Your task to perform on an android device: Search for Italian restaurants on Maps Image 0: 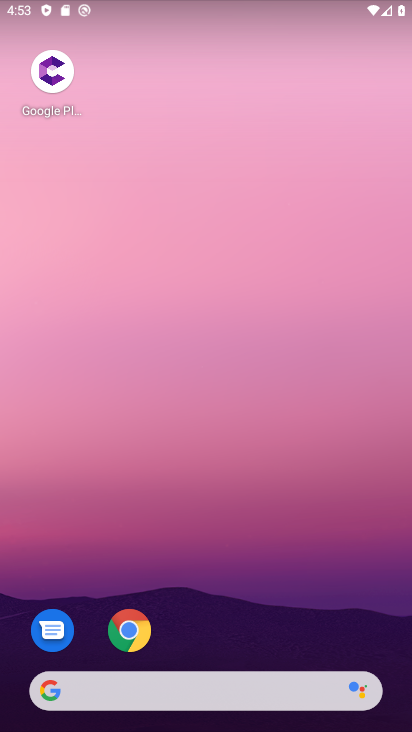
Step 0: drag from (330, 578) to (250, 48)
Your task to perform on an android device: Search for Italian restaurants on Maps Image 1: 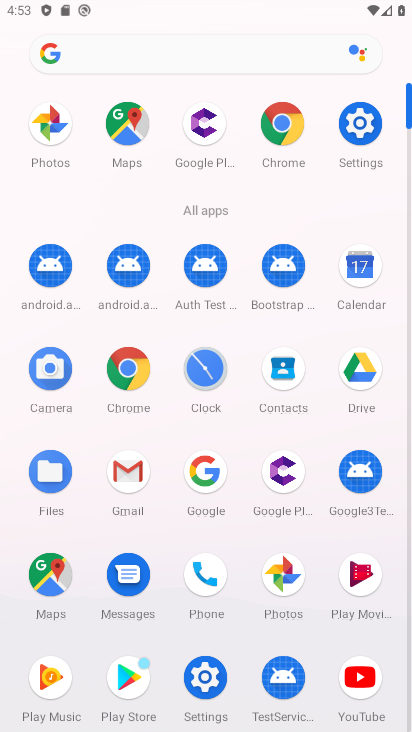
Step 1: click (52, 592)
Your task to perform on an android device: Search for Italian restaurants on Maps Image 2: 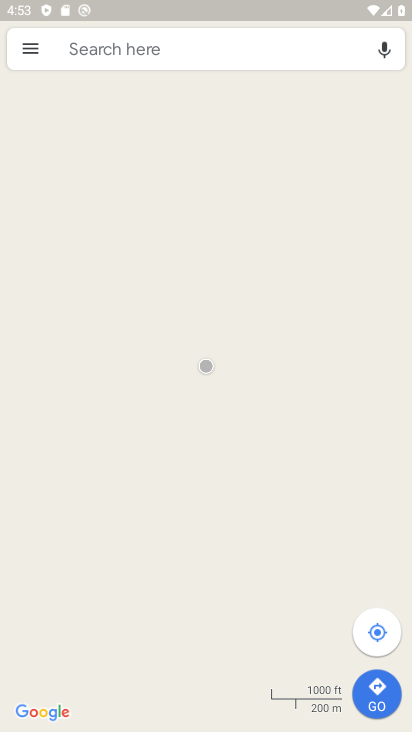
Step 2: click (167, 51)
Your task to perform on an android device: Search for Italian restaurants on Maps Image 3: 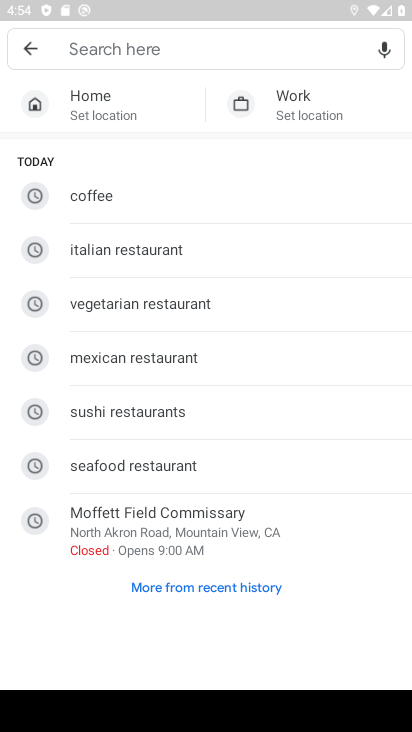
Step 3: type "Italian restaurants"
Your task to perform on an android device: Search for Italian restaurants on Maps Image 4: 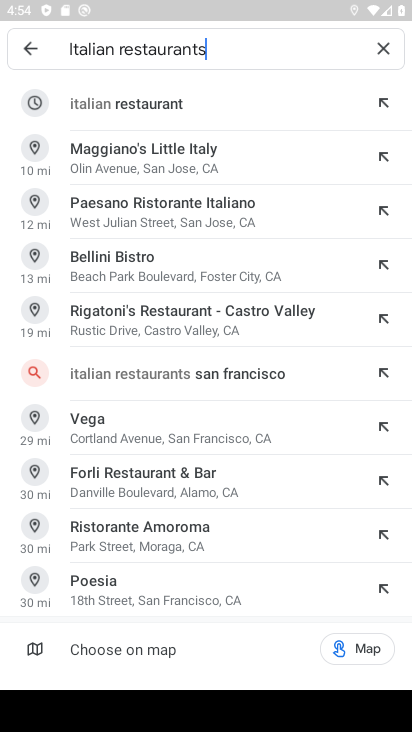
Step 4: press enter
Your task to perform on an android device: Search for Italian restaurants on Maps Image 5: 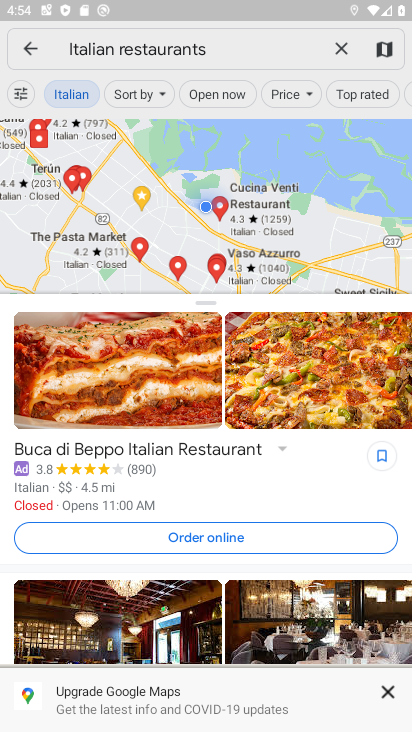
Step 5: task complete